Your task to perform on an android device: Go to accessibility settings Image 0: 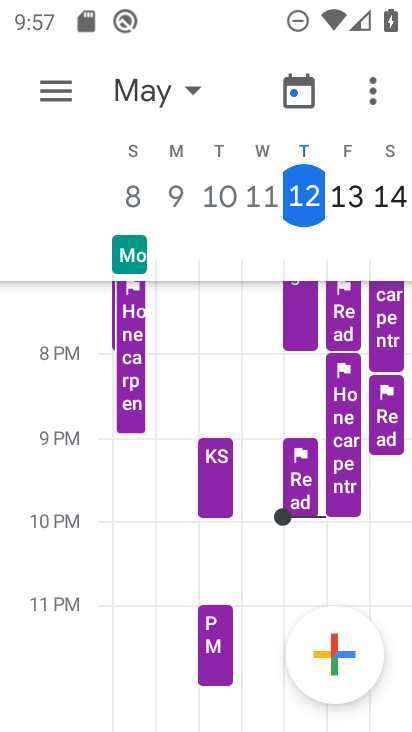
Step 0: press home button
Your task to perform on an android device: Go to accessibility settings Image 1: 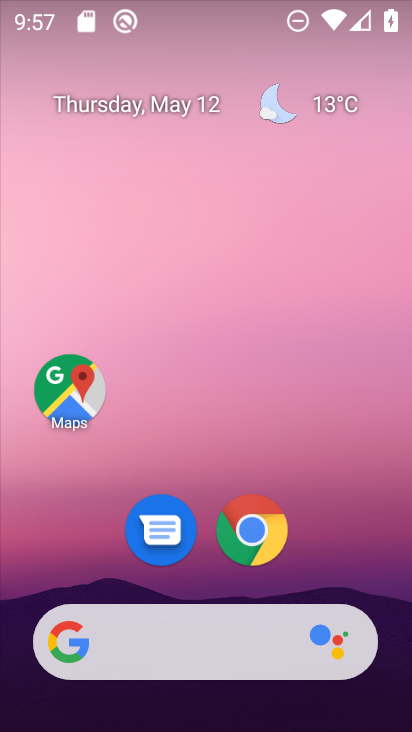
Step 1: drag from (363, 582) to (373, 10)
Your task to perform on an android device: Go to accessibility settings Image 2: 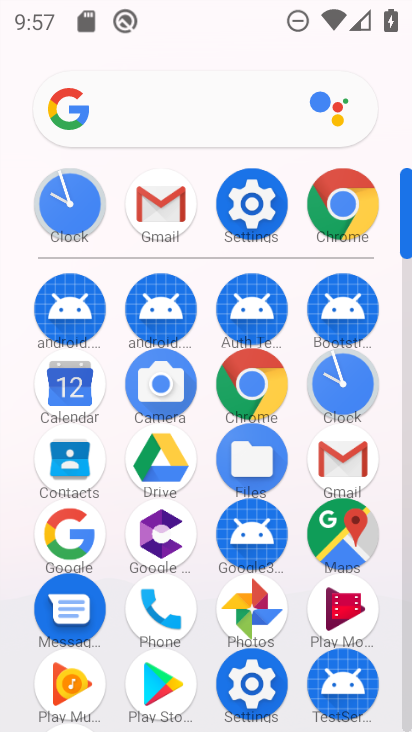
Step 2: click (264, 229)
Your task to perform on an android device: Go to accessibility settings Image 3: 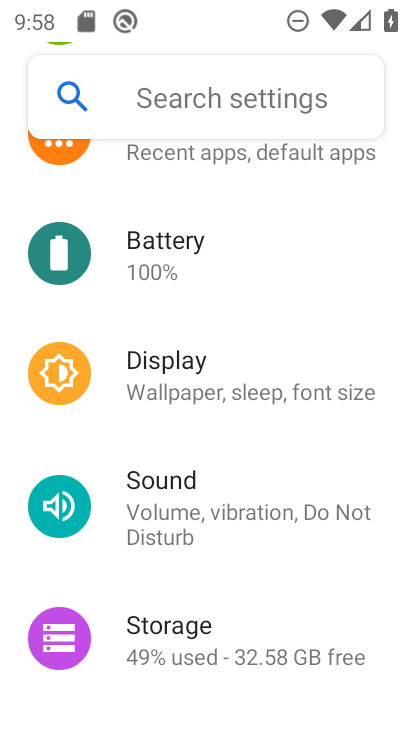
Step 3: drag from (258, 287) to (147, 613)
Your task to perform on an android device: Go to accessibility settings Image 4: 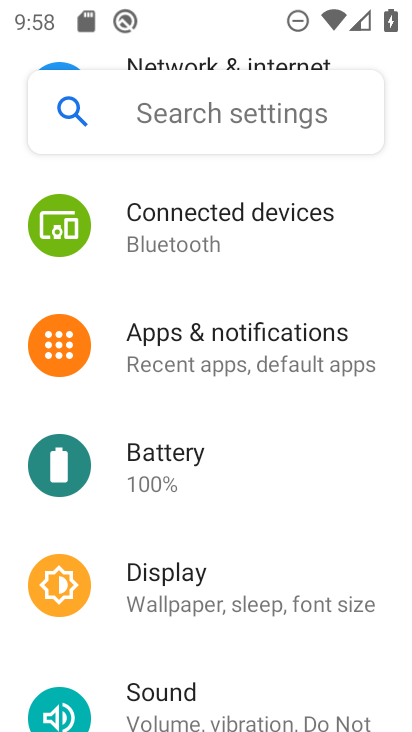
Step 4: drag from (334, 233) to (102, 687)
Your task to perform on an android device: Go to accessibility settings Image 5: 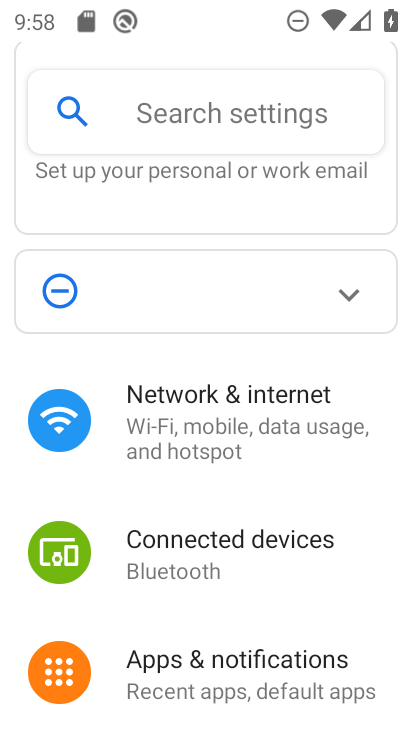
Step 5: drag from (240, 591) to (302, 212)
Your task to perform on an android device: Go to accessibility settings Image 6: 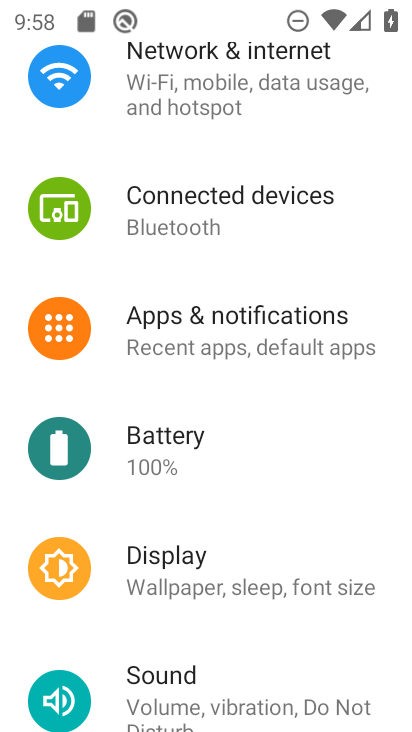
Step 6: drag from (285, 652) to (385, 140)
Your task to perform on an android device: Go to accessibility settings Image 7: 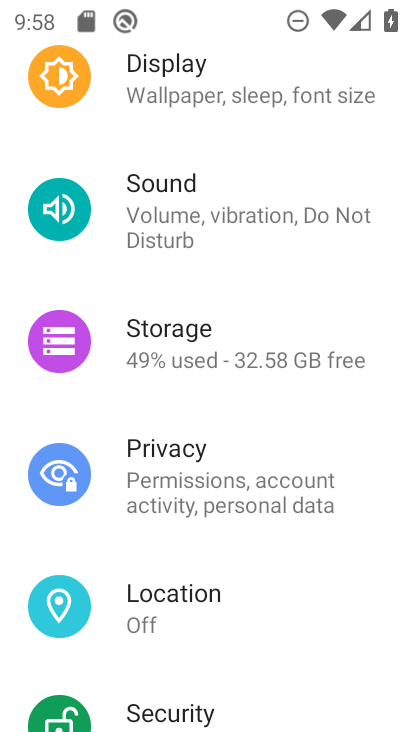
Step 7: drag from (211, 586) to (274, 87)
Your task to perform on an android device: Go to accessibility settings Image 8: 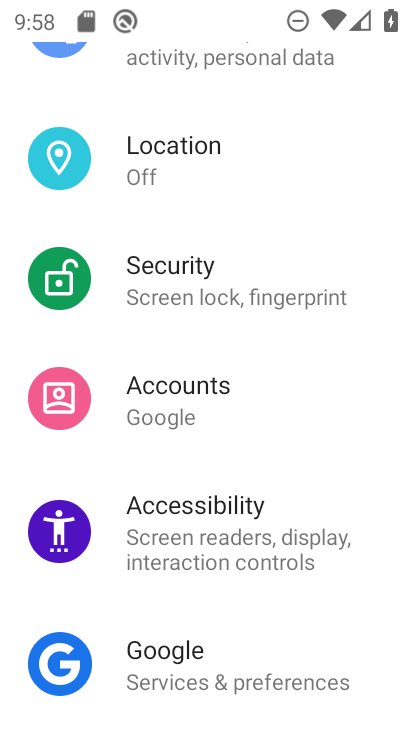
Step 8: click (227, 530)
Your task to perform on an android device: Go to accessibility settings Image 9: 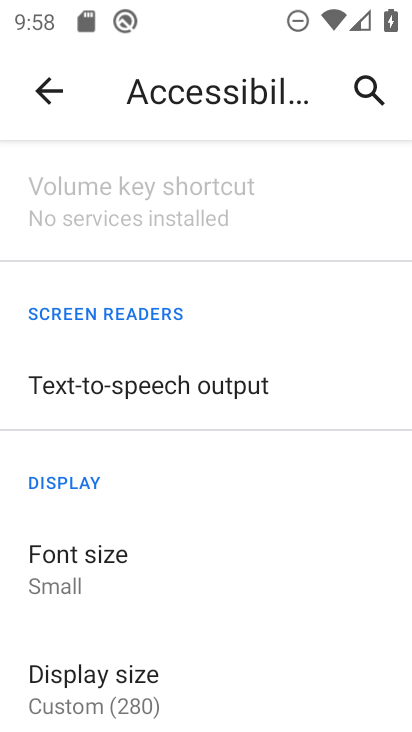
Step 9: task complete